Your task to perform on an android device: stop showing notifications on the lock screen Image 0: 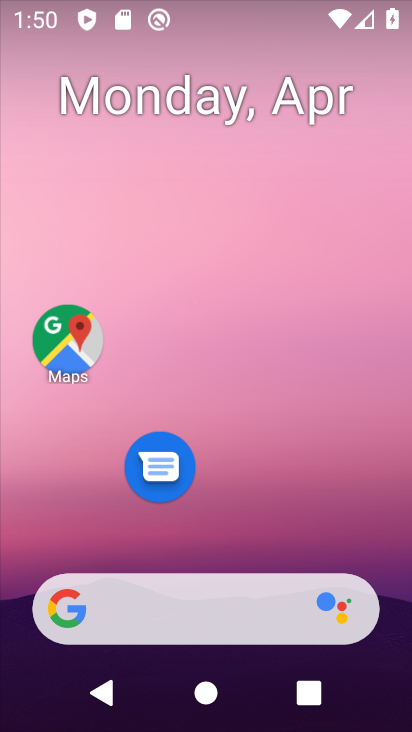
Step 0: drag from (264, 540) to (301, 35)
Your task to perform on an android device: stop showing notifications on the lock screen Image 1: 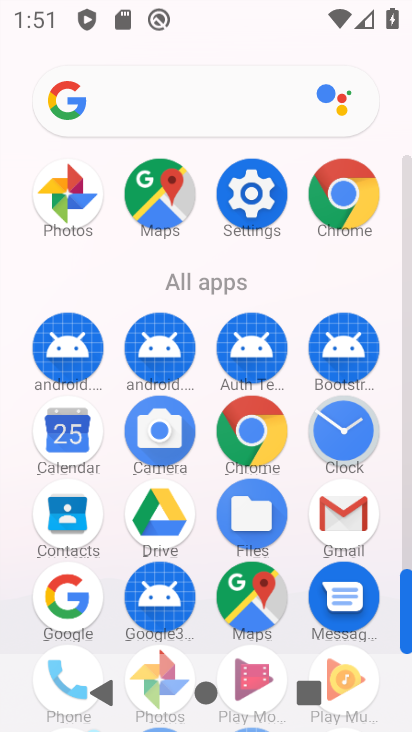
Step 1: click (236, 195)
Your task to perform on an android device: stop showing notifications on the lock screen Image 2: 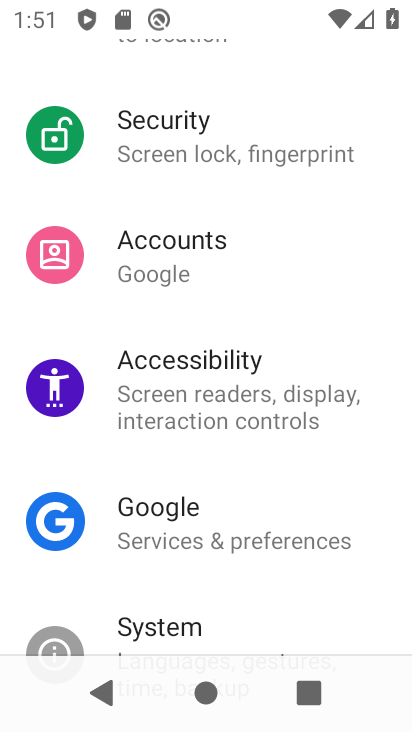
Step 2: drag from (223, 414) to (237, 560)
Your task to perform on an android device: stop showing notifications on the lock screen Image 3: 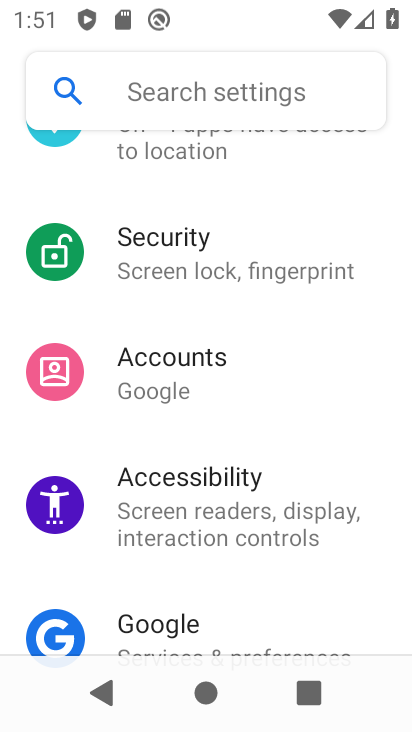
Step 3: drag from (244, 447) to (275, 594)
Your task to perform on an android device: stop showing notifications on the lock screen Image 4: 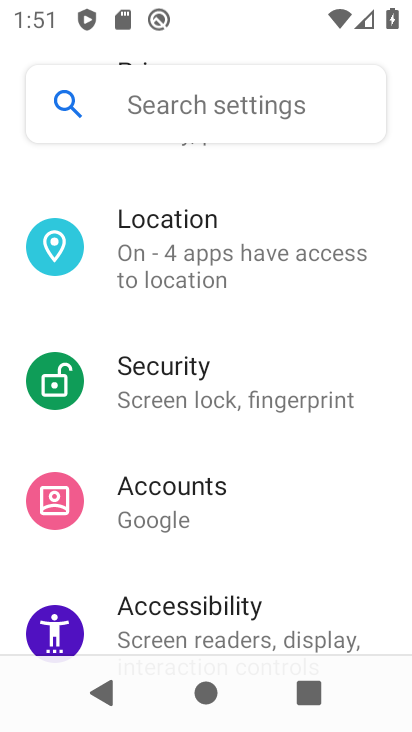
Step 4: drag from (291, 397) to (300, 547)
Your task to perform on an android device: stop showing notifications on the lock screen Image 5: 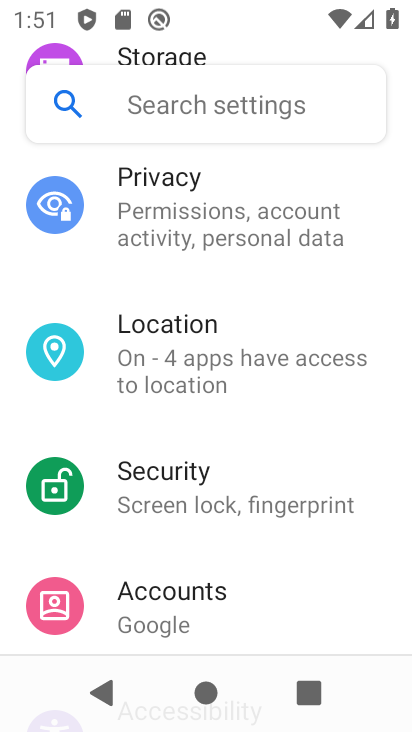
Step 5: drag from (239, 336) to (240, 574)
Your task to perform on an android device: stop showing notifications on the lock screen Image 6: 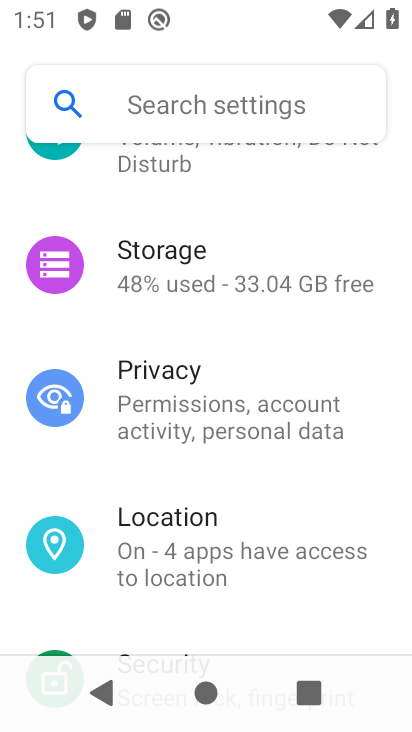
Step 6: drag from (209, 400) to (252, 604)
Your task to perform on an android device: stop showing notifications on the lock screen Image 7: 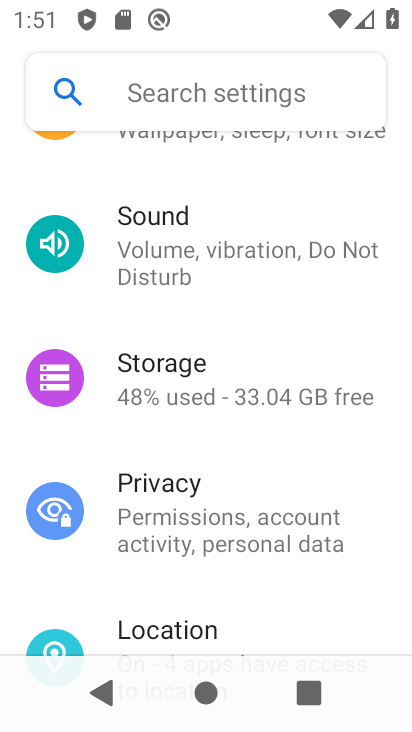
Step 7: drag from (246, 343) to (290, 550)
Your task to perform on an android device: stop showing notifications on the lock screen Image 8: 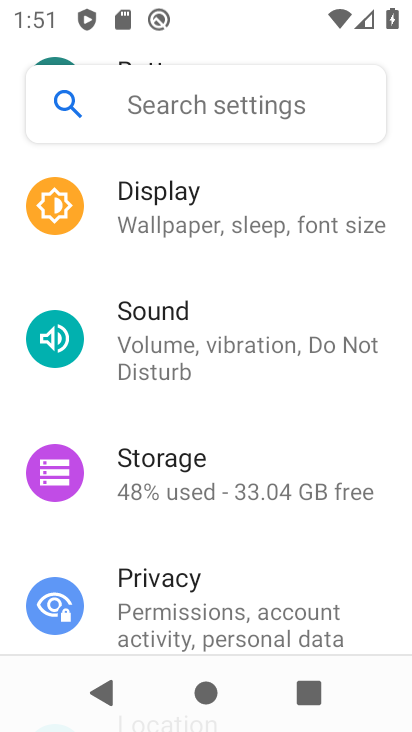
Step 8: drag from (225, 405) to (250, 632)
Your task to perform on an android device: stop showing notifications on the lock screen Image 9: 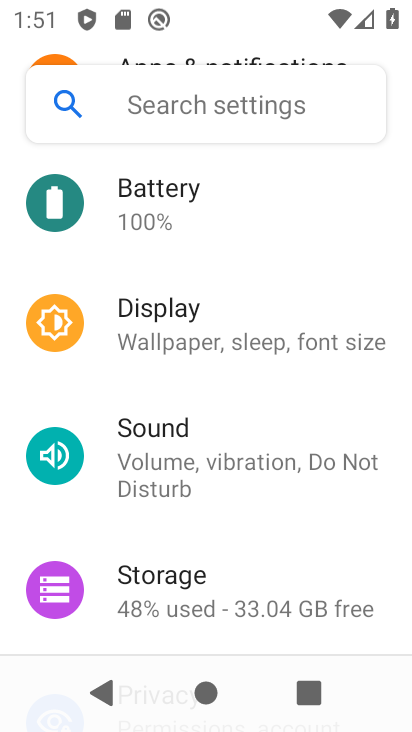
Step 9: drag from (225, 306) to (261, 598)
Your task to perform on an android device: stop showing notifications on the lock screen Image 10: 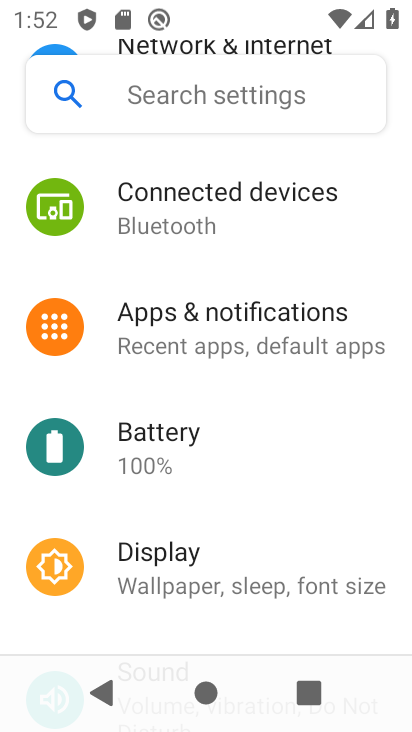
Step 10: click (274, 351)
Your task to perform on an android device: stop showing notifications on the lock screen Image 11: 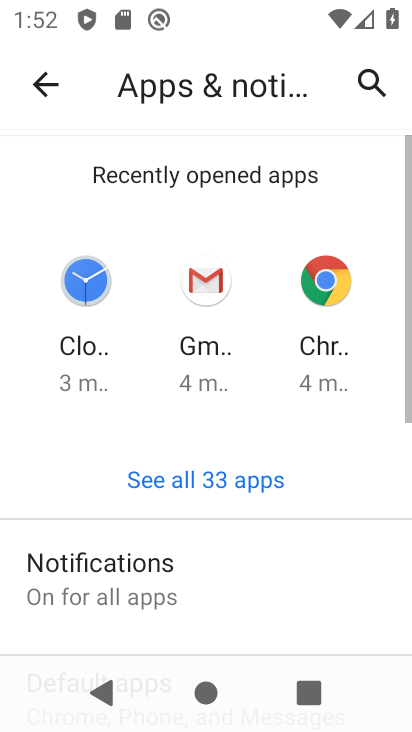
Step 11: click (193, 589)
Your task to perform on an android device: stop showing notifications on the lock screen Image 12: 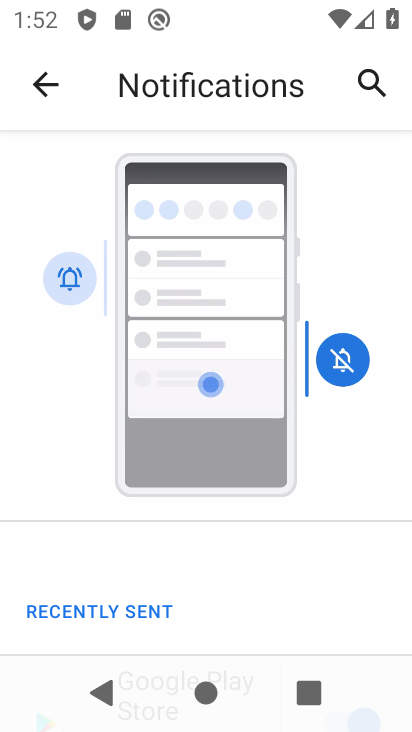
Step 12: drag from (232, 600) to (306, 179)
Your task to perform on an android device: stop showing notifications on the lock screen Image 13: 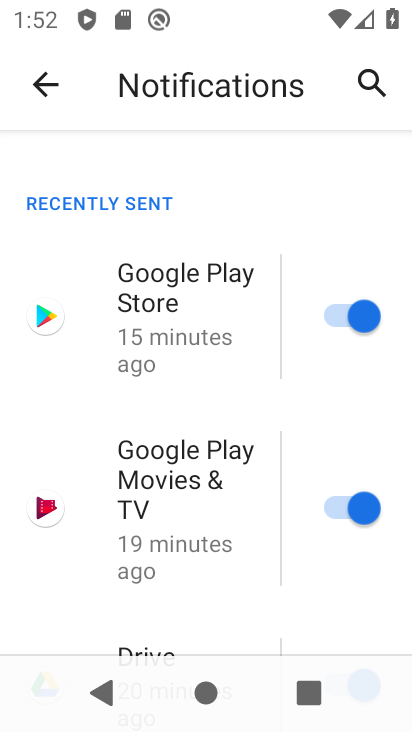
Step 13: drag from (225, 563) to (223, 103)
Your task to perform on an android device: stop showing notifications on the lock screen Image 14: 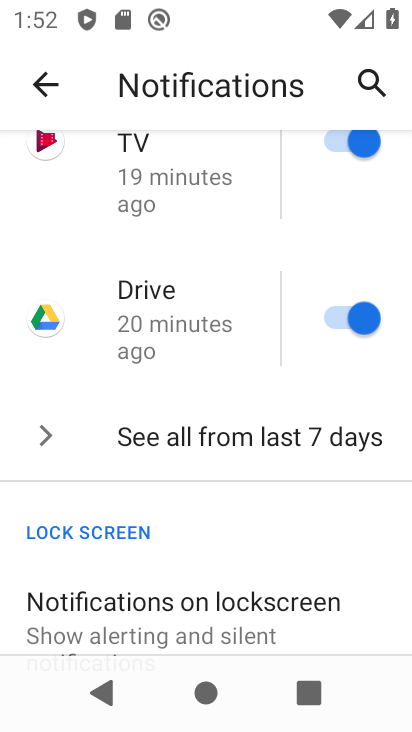
Step 14: drag from (188, 572) to (195, 175)
Your task to perform on an android device: stop showing notifications on the lock screen Image 15: 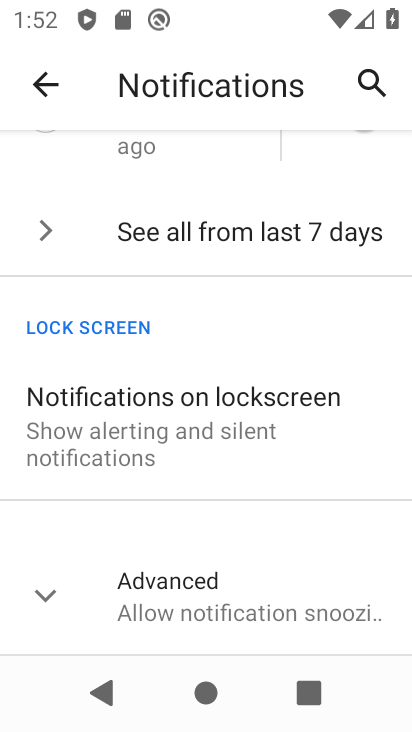
Step 15: drag from (212, 616) to (193, 363)
Your task to perform on an android device: stop showing notifications on the lock screen Image 16: 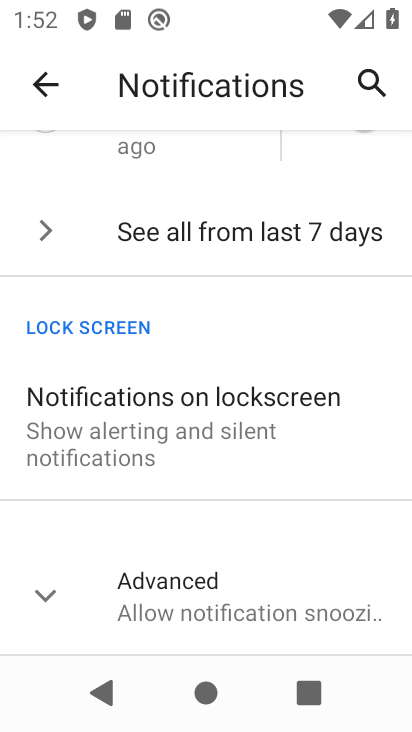
Step 16: click (178, 431)
Your task to perform on an android device: stop showing notifications on the lock screen Image 17: 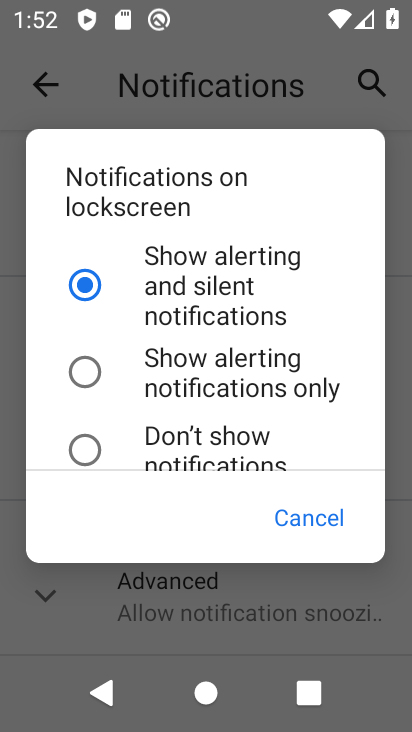
Step 17: click (172, 455)
Your task to perform on an android device: stop showing notifications on the lock screen Image 18: 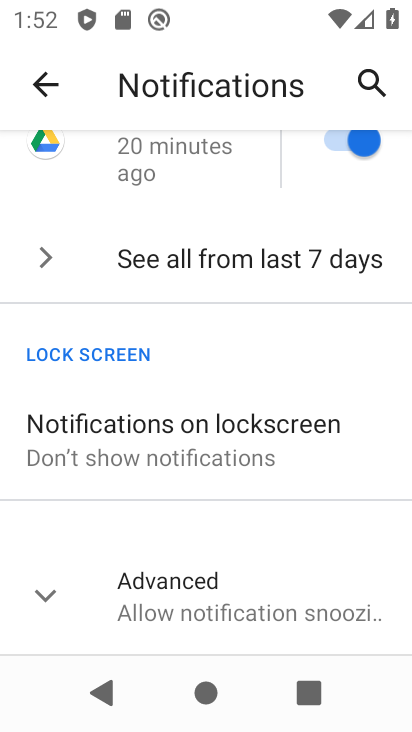
Step 18: task complete